Your task to perform on an android device: visit the assistant section in the google photos Image 0: 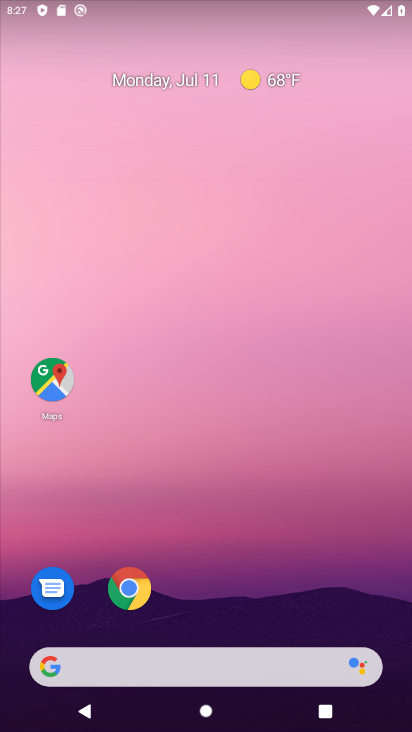
Step 0: drag from (199, 643) to (216, 29)
Your task to perform on an android device: visit the assistant section in the google photos Image 1: 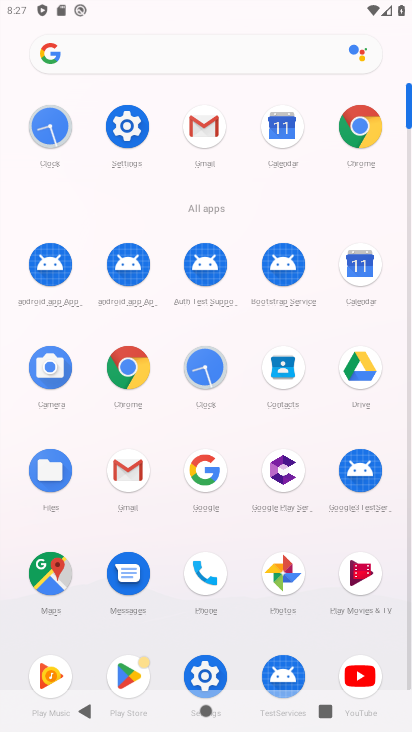
Step 1: click (296, 573)
Your task to perform on an android device: visit the assistant section in the google photos Image 2: 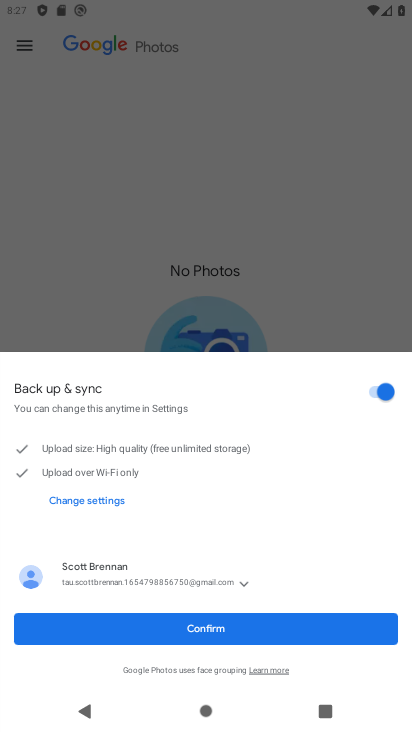
Step 2: click (324, 628)
Your task to perform on an android device: visit the assistant section in the google photos Image 3: 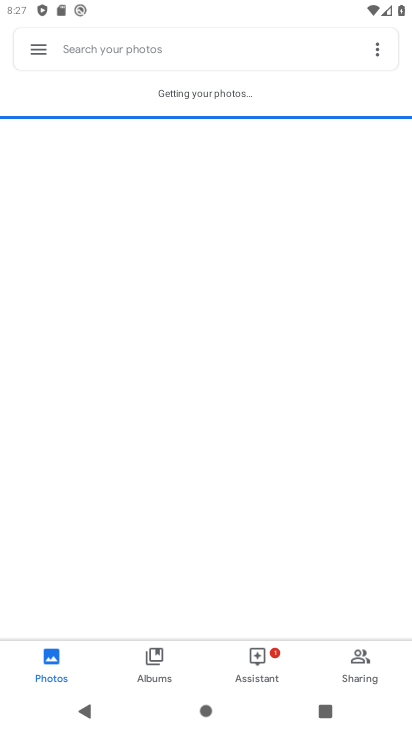
Step 3: click (262, 668)
Your task to perform on an android device: visit the assistant section in the google photos Image 4: 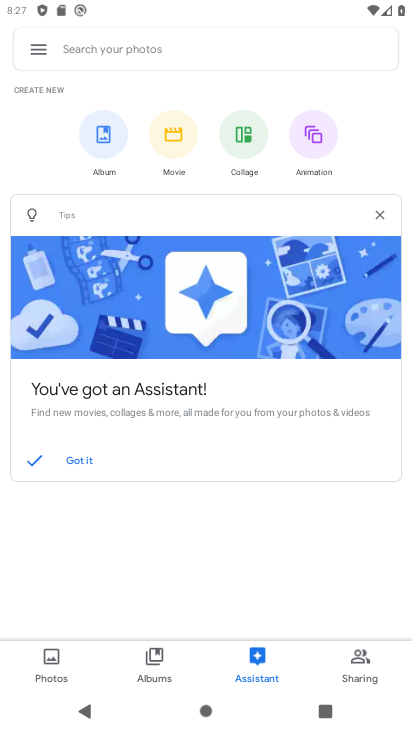
Step 4: task complete